Your task to perform on an android device: Is it going to rain today? Image 0: 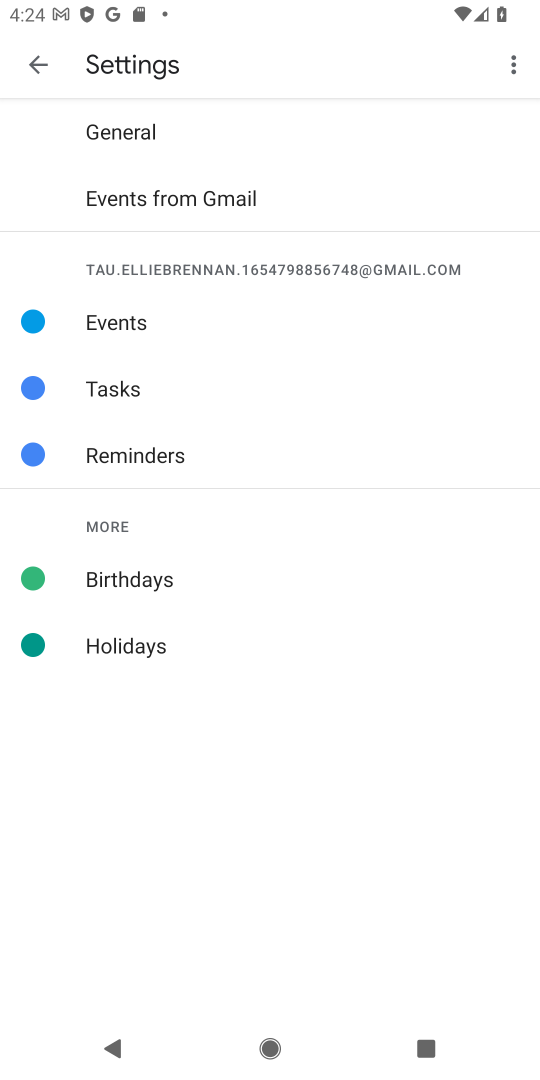
Step 0: press home button
Your task to perform on an android device: Is it going to rain today? Image 1: 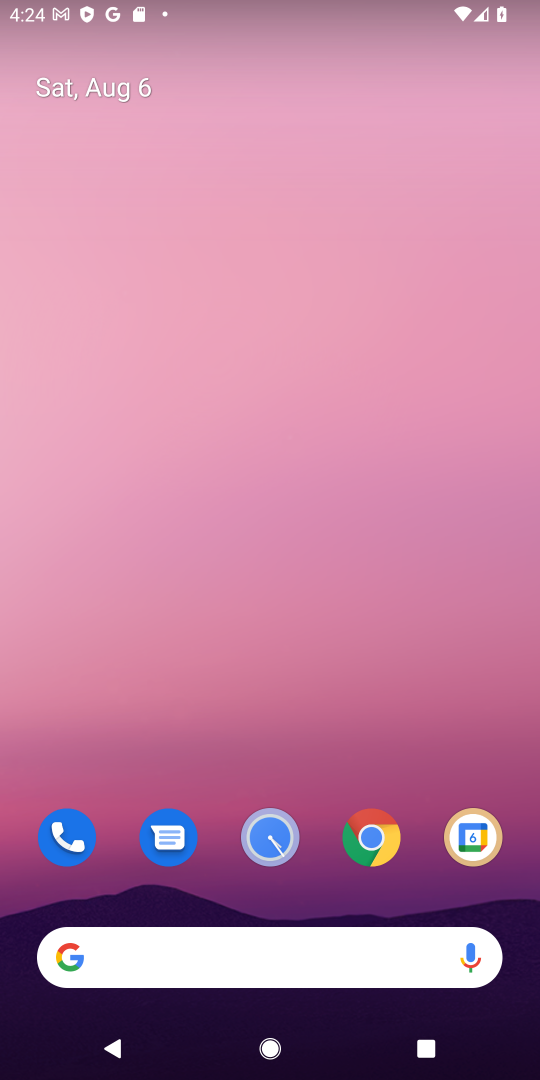
Step 1: click (239, 942)
Your task to perform on an android device: Is it going to rain today? Image 2: 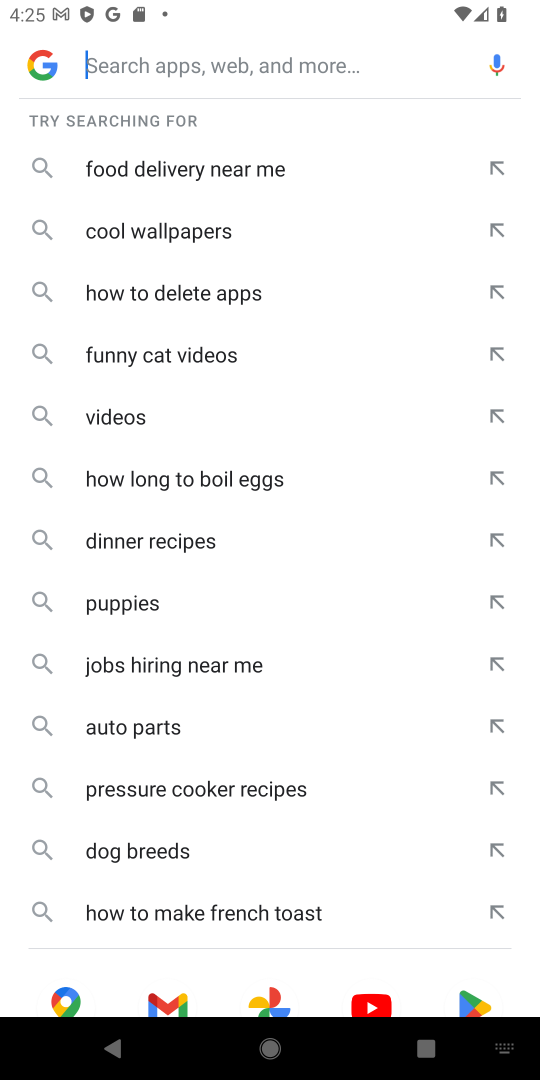
Step 2: type "weather"
Your task to perform on an android device: Is it going to rain today? Image 3: 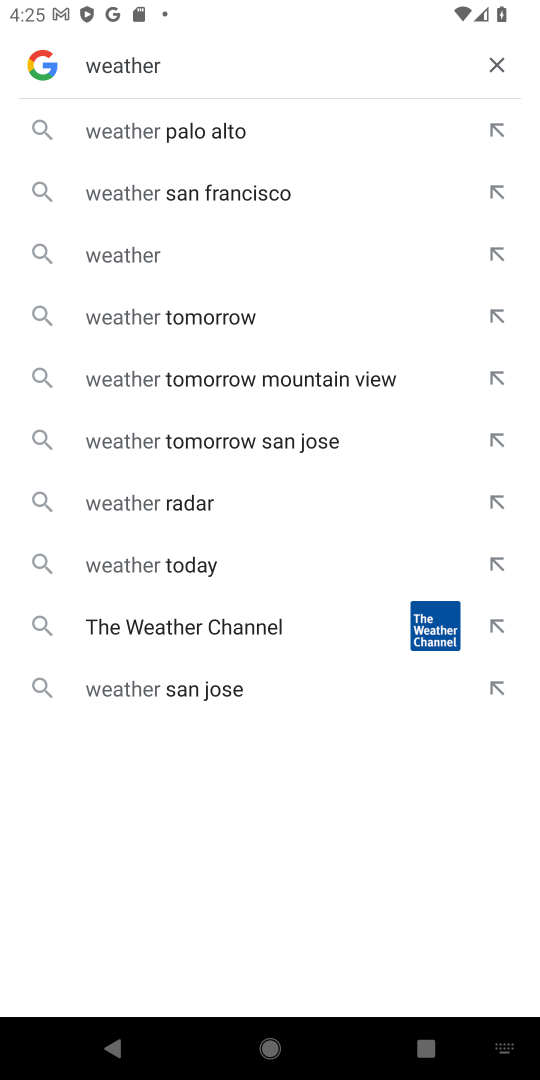
Step 3: click (133, 254)
Your task to perform on an android device: Is it going to rain today? Image 4: 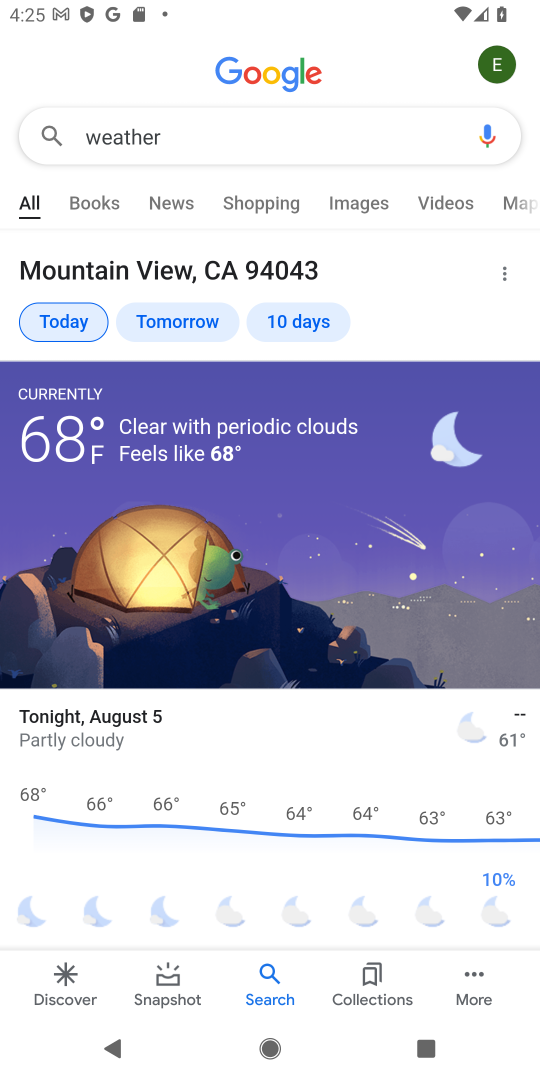
Step 4: task complete